Your task to perform on an android device: check google app version Image 0: 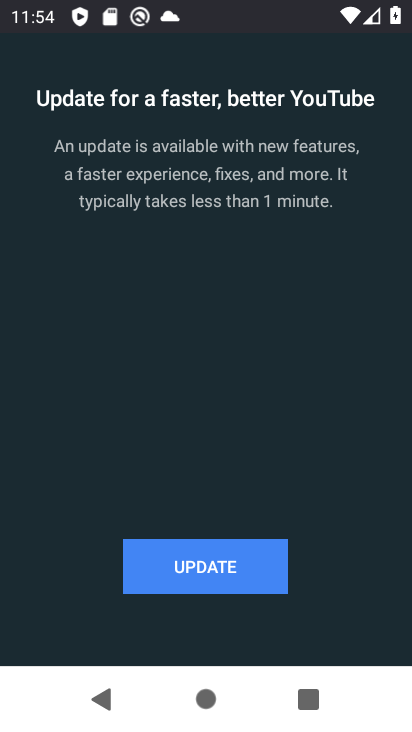
Step 0: press home button
Your task to perform on an android device: check google app version Image 1: 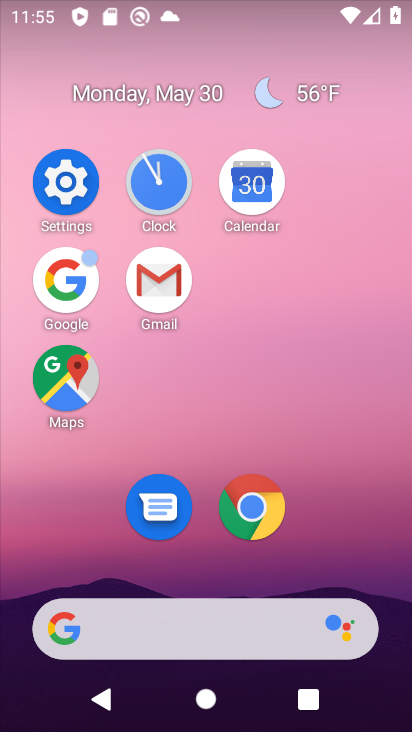
Step 1: click (84, 278)
Your task to perform on an android device: check google app version Image 2: 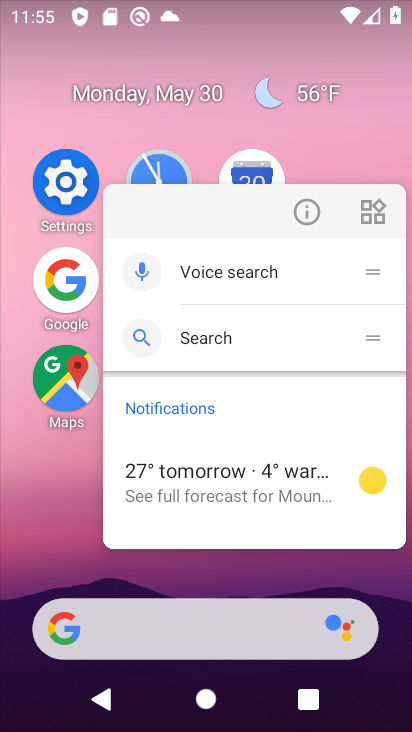
Step 2: click (306, 213)
Your task to perform on an android device: check google app version Image 3: 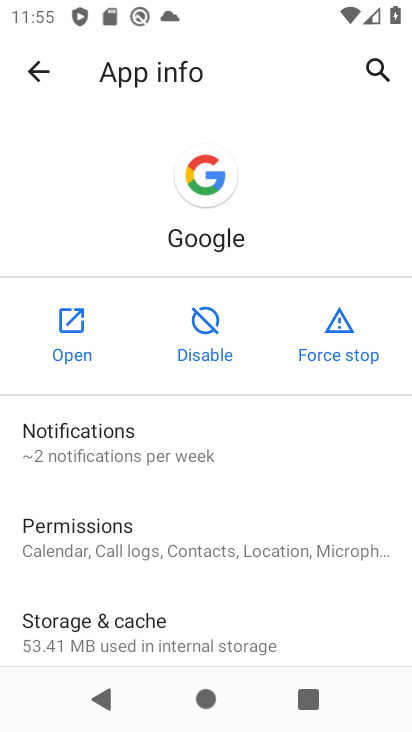
Step 3: drag from (283, 581) to (289, 152)
Your task to perform on an android device: check google app version Image 4: 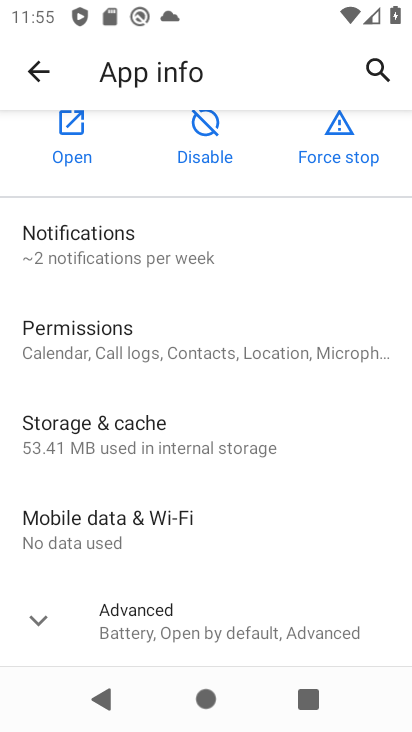
Step 4: click (245, 626)
Your task to perform on an android device: check google app version Image 5: 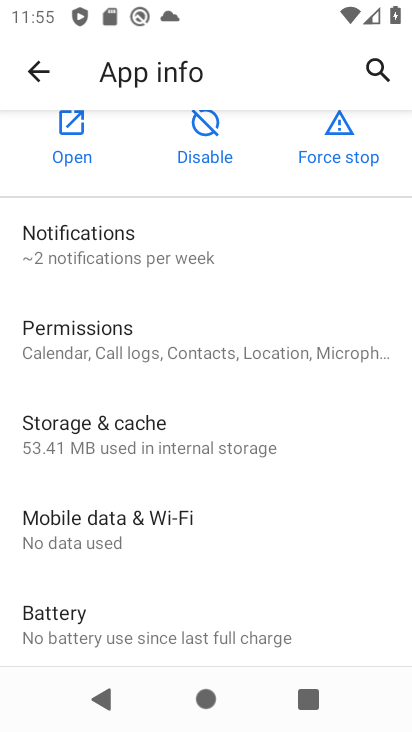
Step 5: task complete